Your task to perform on an android device: Open Amazon Image 0: 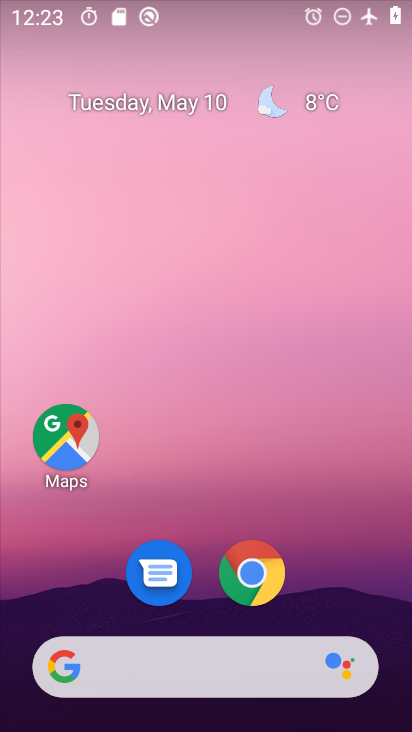
Step 0: click (261, 575)
Your task to perform on an android device: Open Amazon Image 1: 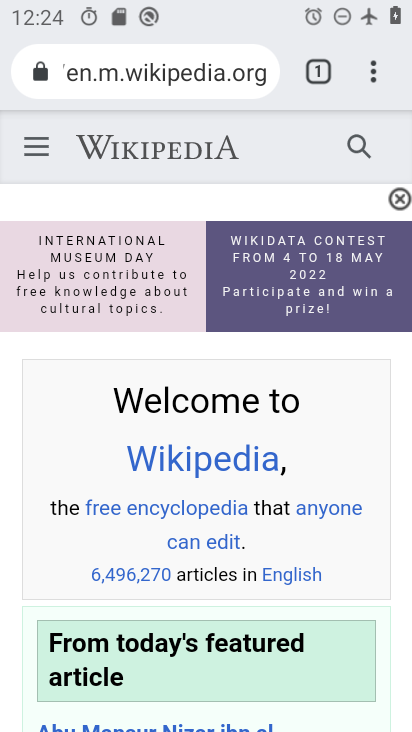
Step 1: click (193, 62)
Your task to perform on an android device: Open Amazon Image 2: 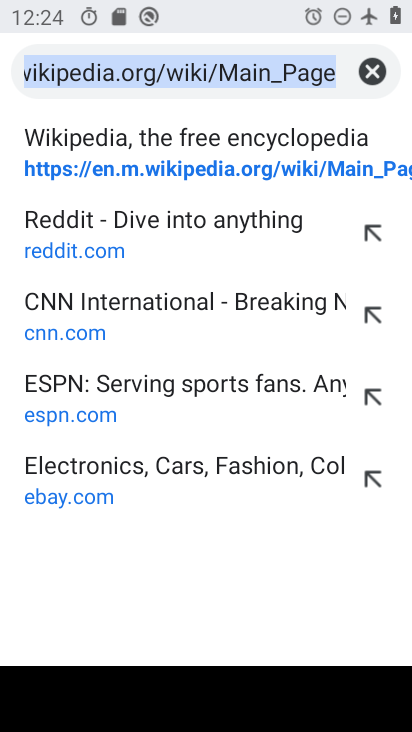
Step 2: type "amazon"
Your task to perform on an android device: Open Amazon Image 3: 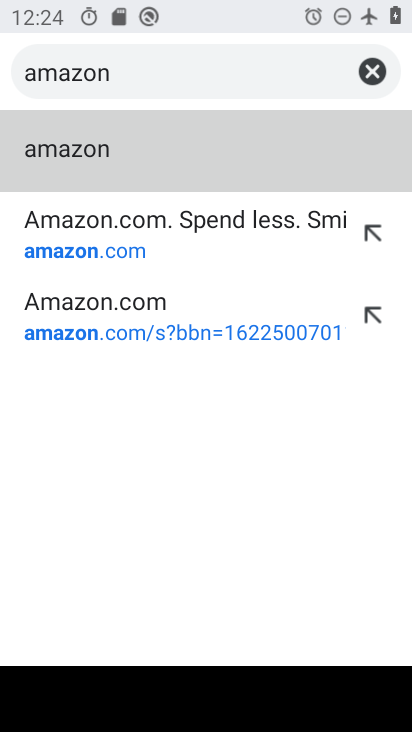
Step 3: click (109, 238)
Your task to perform on an android device: Open Amazon Image 4: 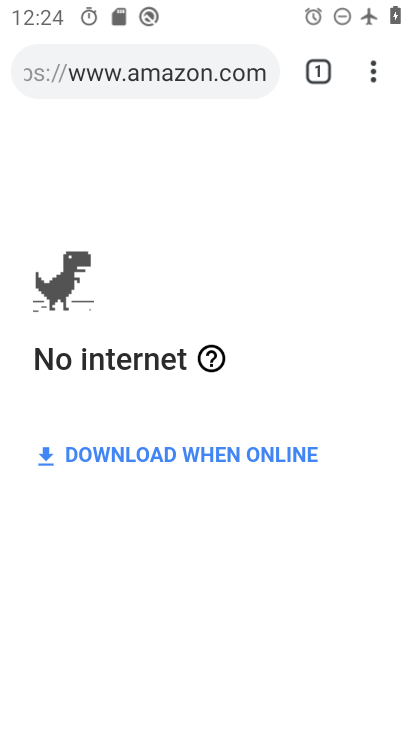
Step 4: task complete